Your task to perform on an android device: toggle notifications settings in the gmail app Image 0: 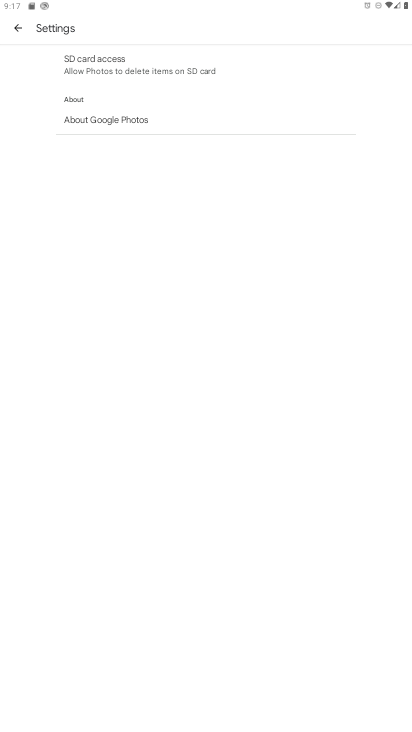
Step 0: press home button
Your task to perform on an android device: toggle notifications settings in the gmail app Image 1: 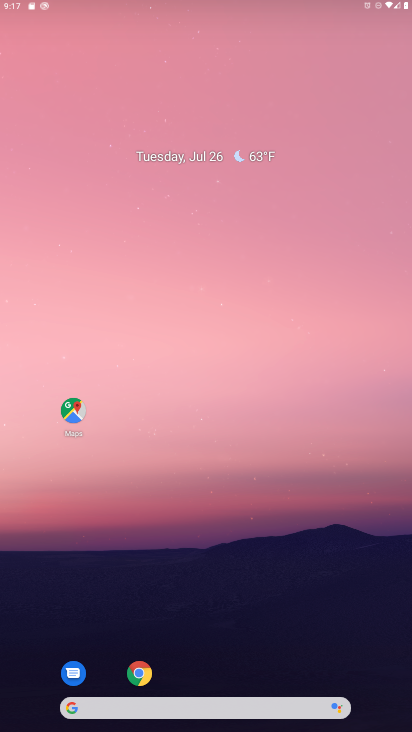
Step 1: drag from (365, 673) to (174, 93)
Your task to perform on an android device: toggle notifications settings in the gmail app Image 2: 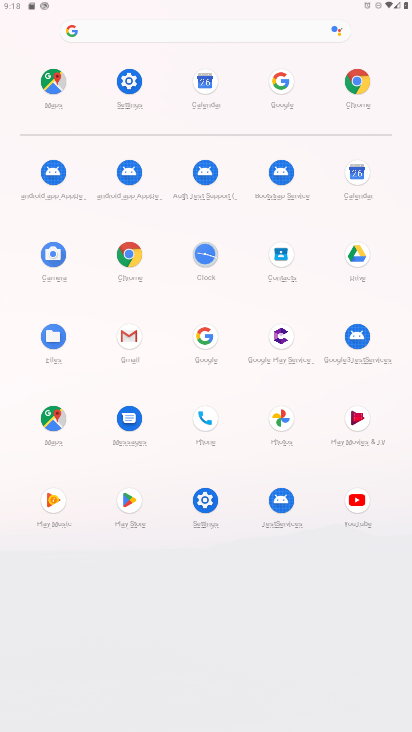
Step 2: click (137, 326)
Your task to perform on an android device: toggle notifications settings in the gmail app Image 3: 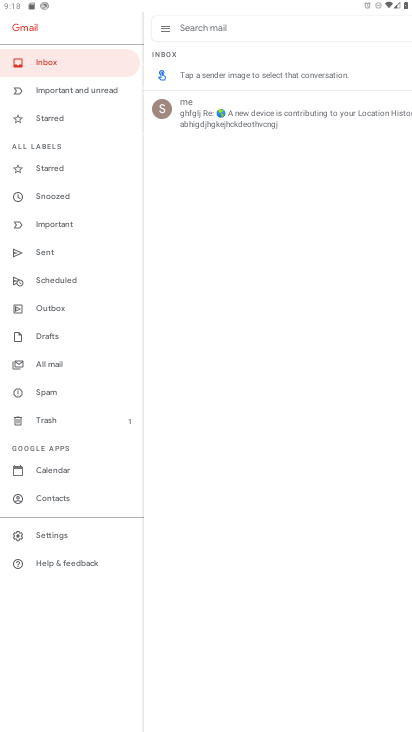
Step 3: click (43, 534)
Your task to perform on an android device: toggle notifications settings in the gmail app Image 4: 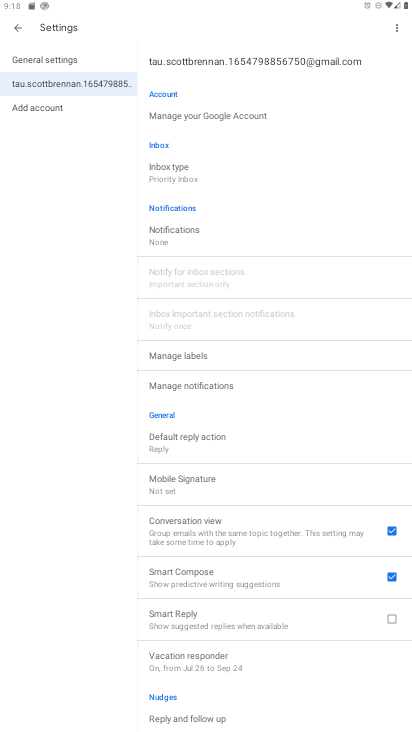
Step 4: click (198, 237)
Your task to perform on an android device: toggle notifications settings in the gmail app Image 5: 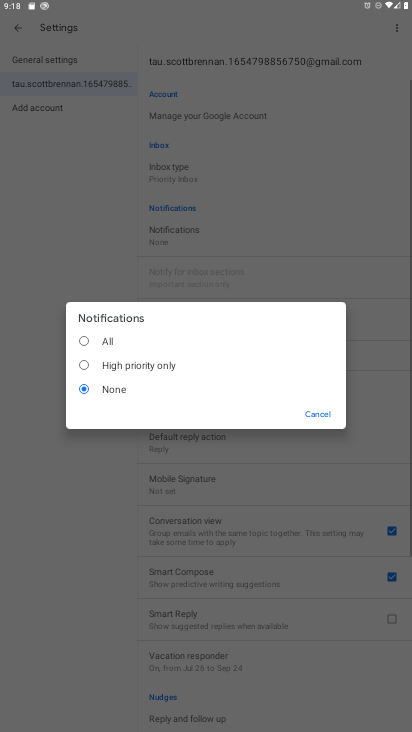
Step 5: click (85, 340)
Your task to perform on an android device: toggle notifications settings in the gmail app Image 6: 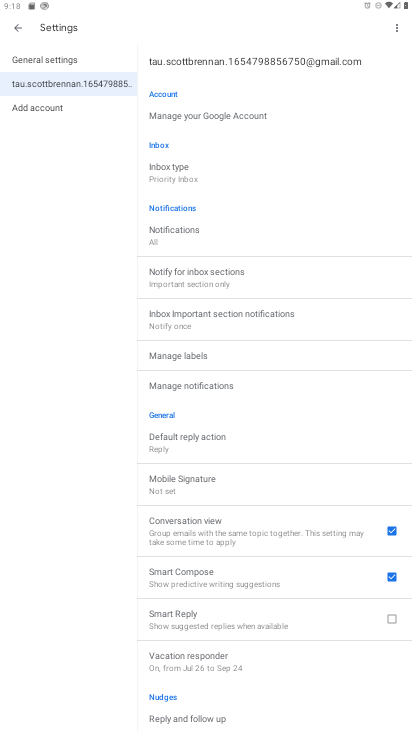
Step 6: task complete